Your task to perform on an android device: What's the weather today? Image 0: 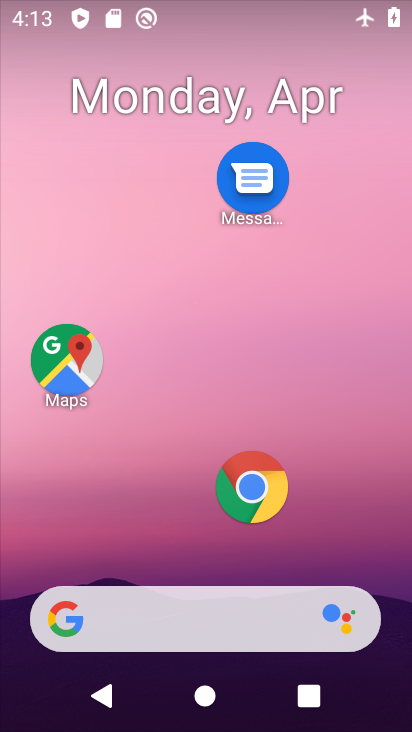
Step 0: drag from (177, 540) to (173, 53)
Your task to perform on an android device: What's the weather today? Image 1: 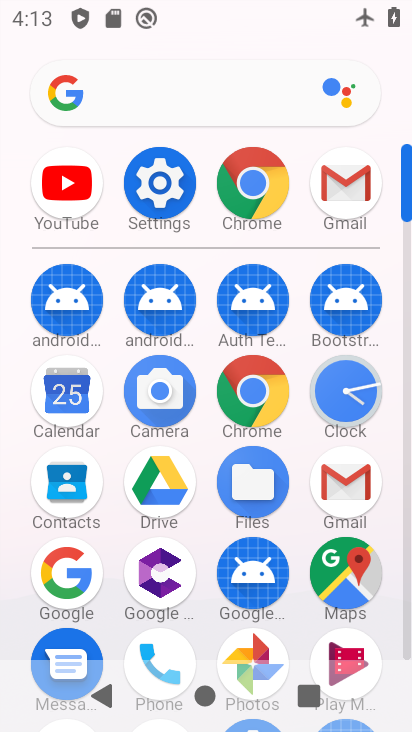
Step 1: click (190, 88)
Your task to perform on an android device: What's the weather today? Image 2: 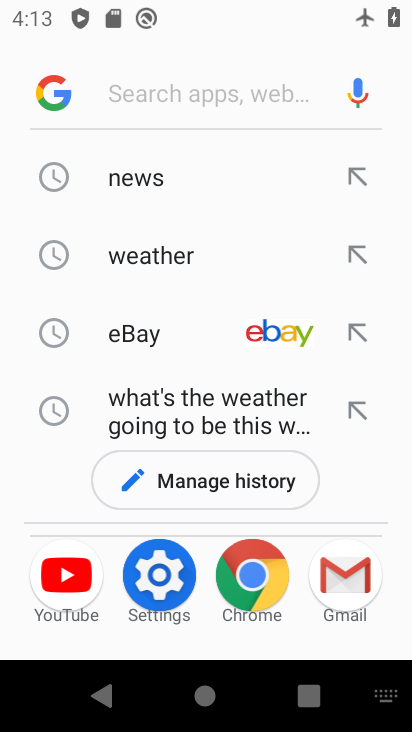
Step 2: click (149, 266)
Your task to perform on an android device: What's the weather today? Image 3: 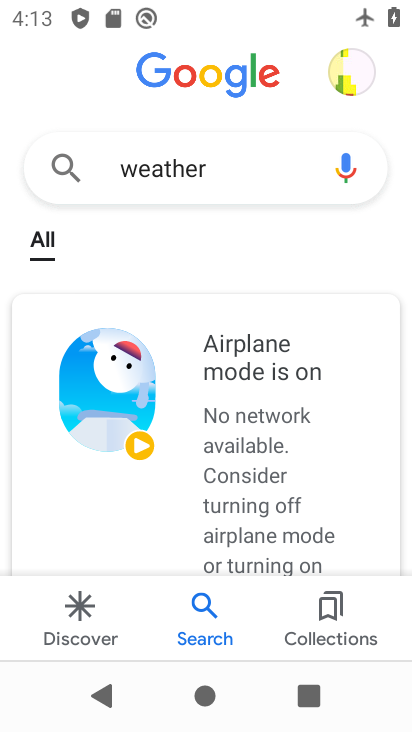
Step 3: task complete